Your task to perform on an android device: Open display settings Image 0: 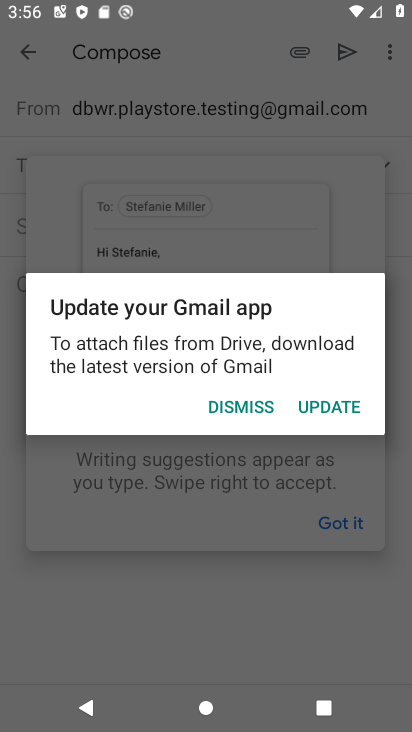
Step 0: press home button
Your task to perform on an android device: Open display settings Image 1: 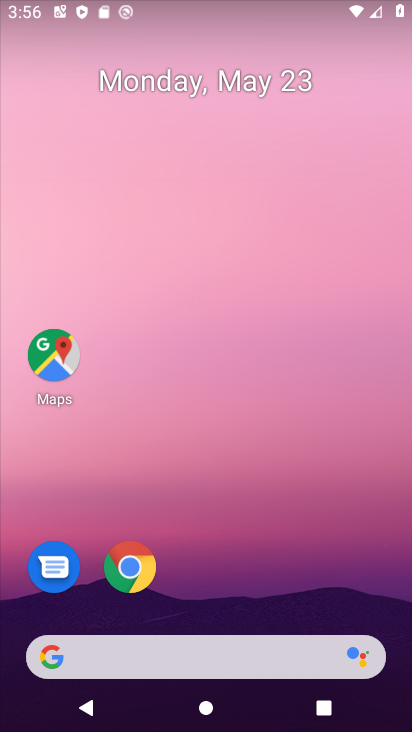
Step 1: drag from (393, 623) to (271, 121)
Your task to perform on an android device: Open display settings Image 2: 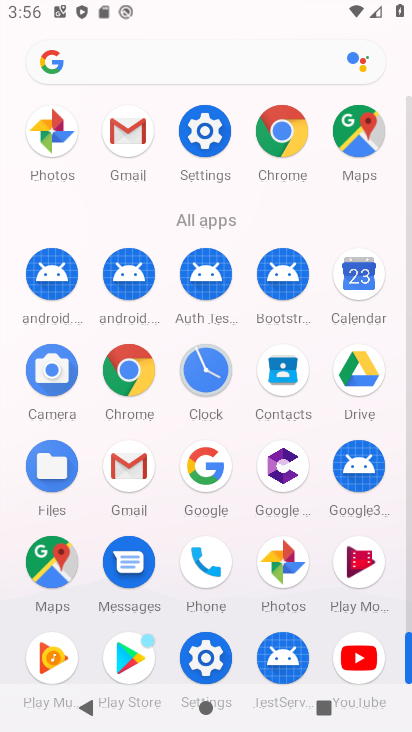
Step 2: click (209, 663)
Your task to perform on an android device: Open display settings Image 3: 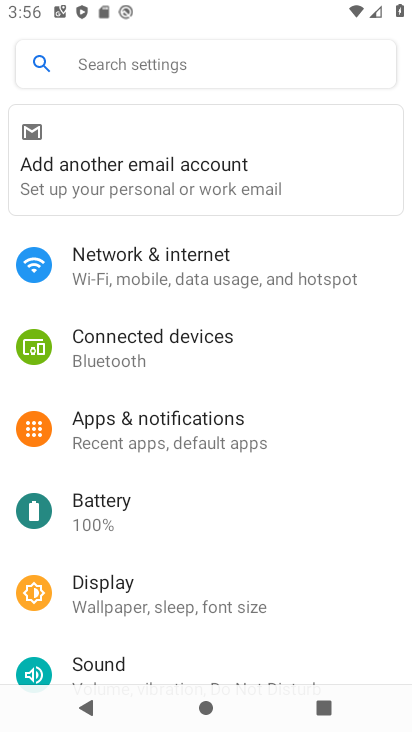
Step 3: click (111, 591)
Your task to perform on an android device: Open display settings Image 4: 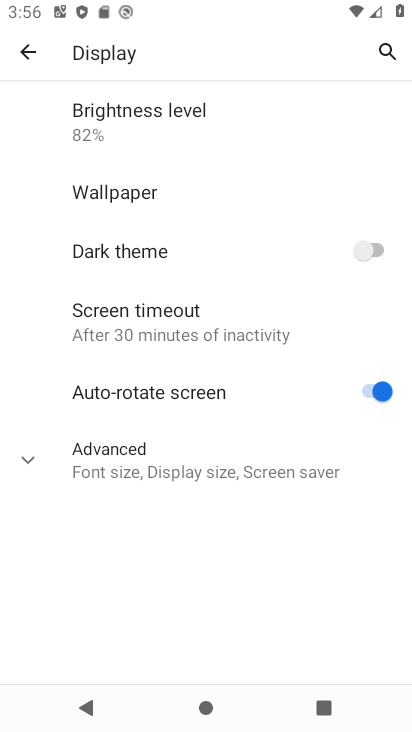
Step 4: click (24, 452)
Your task to perform on an android device: Open display settings Image 5: 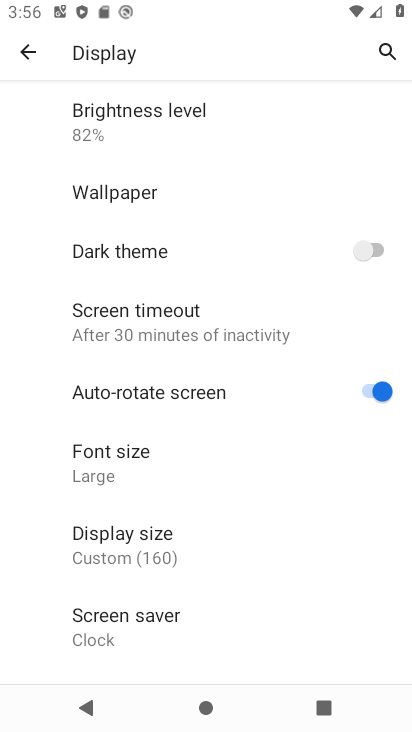
Step 5: task complete